Your task to perform on an android device: Search for pizza restaurants on Maps Image 0: 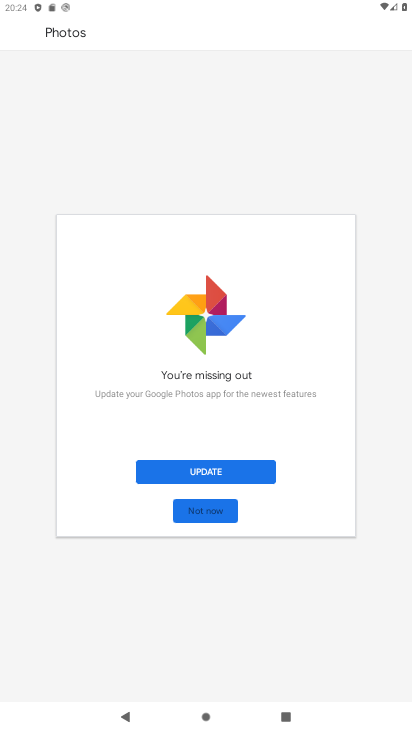
Step 0: press home button
Your task to perform on an android device: Search for pizza restaurants on Maps Image 1: 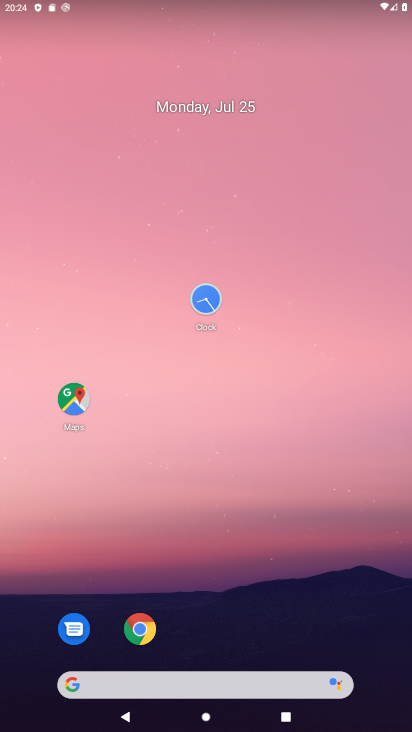
Step 1: click (71, 407)
Your task to perform on an android device: Search for pizza restaurants on Maps Image 2: 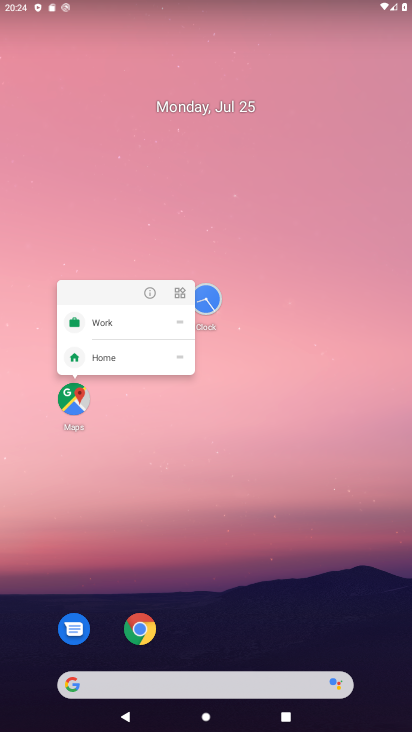
Step 2: click (89, 399)
Your task to perform on an android device: Search for pizza restaurants on Maps Image 3: 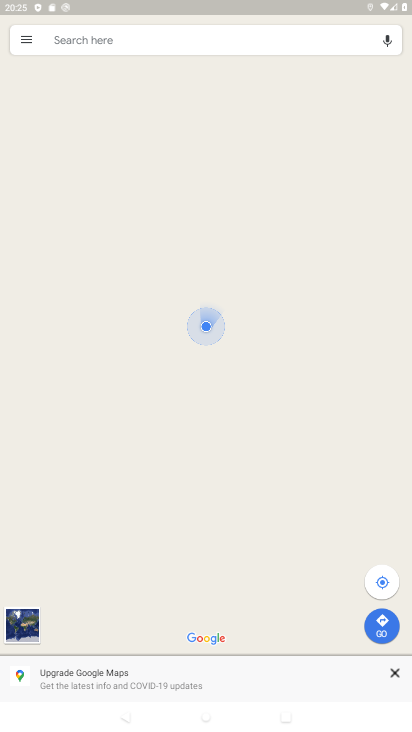
Step 3: click (180, 46)
Your task to perform on an android device: Search for pizza restaurants on Maps Image 4: 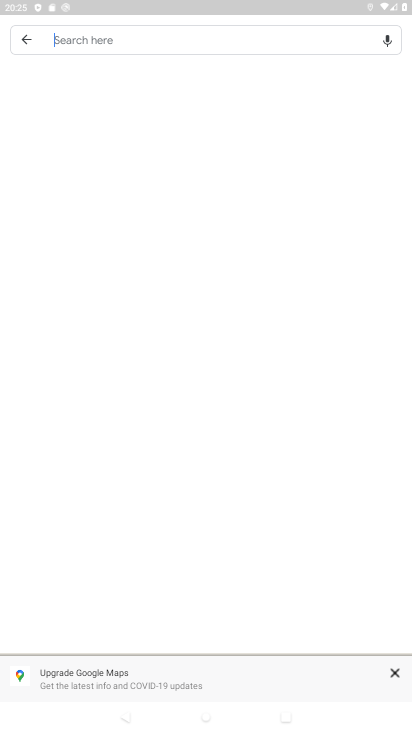
Step 4: click (190, 39)
Your task to perform on an android device: Search for pizza restaurants on Maps Image 5: 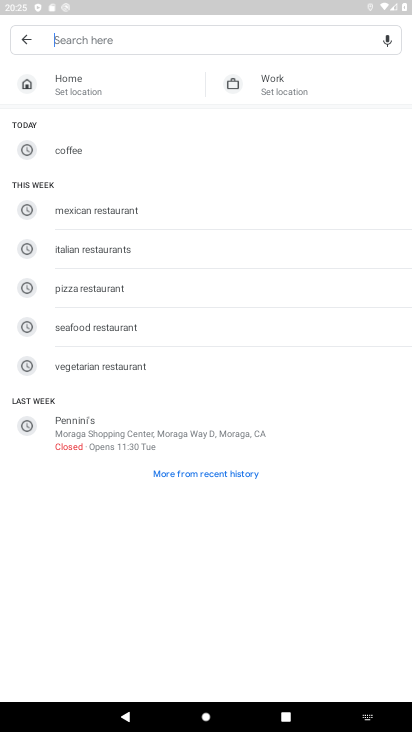
Step 5: type "Pizza restaurants"
Your task to perform on an android device: Search for pizza restaurants on Maps Image 6: 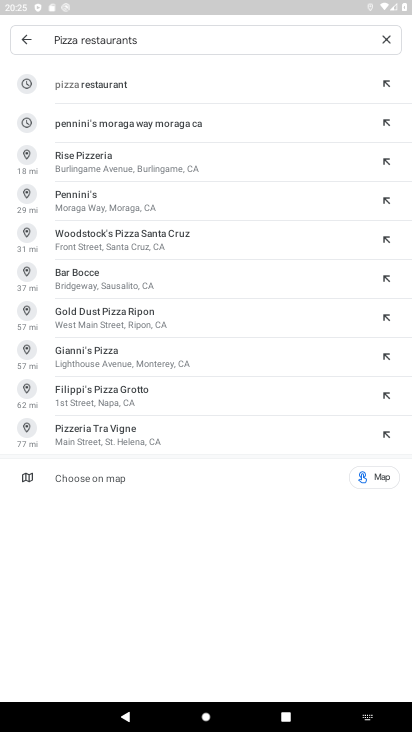
Step 6: click (122, 90)
Your task to perform on an android device: Search for pizza restaurants on Maps Image 7: 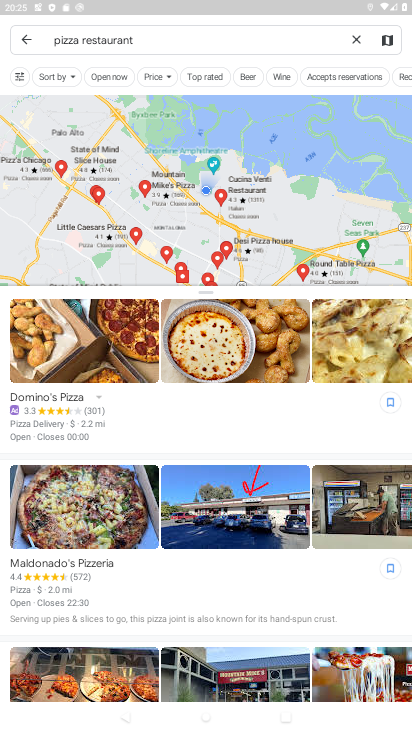
Step 7: task complete